Your task to perform on an android device: Search for Mexican restaurants on Maps Image 0: 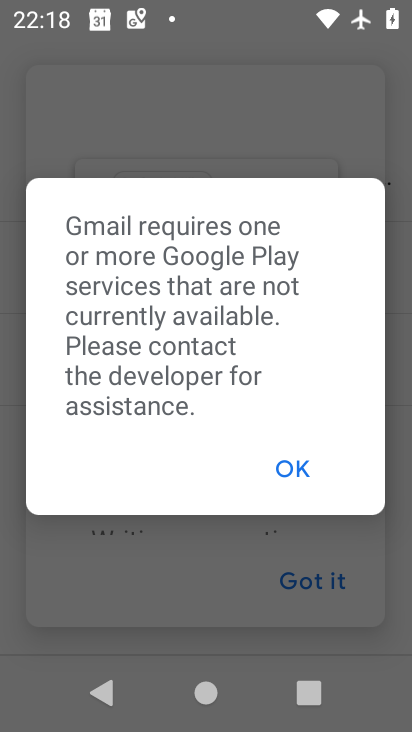
Step 0: press home button
Your task to perform on an android device: Search for Mexican restaurants on Maps Image 1: 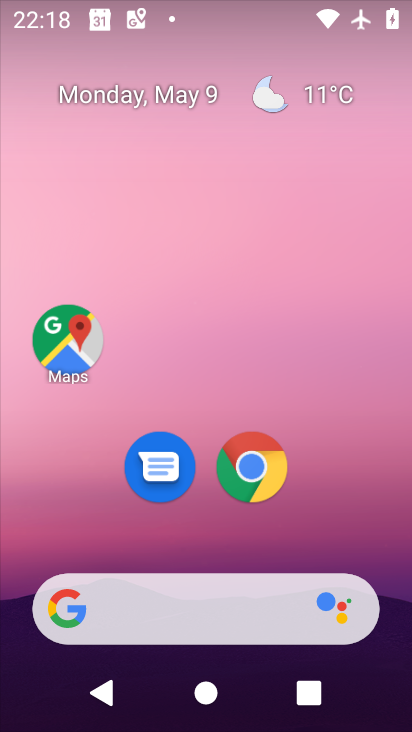
Step 1: drag from (339, 331) to (339, 278)
Your task to perform on an android device: Search for Mexican restaurants on Maps Image 2: 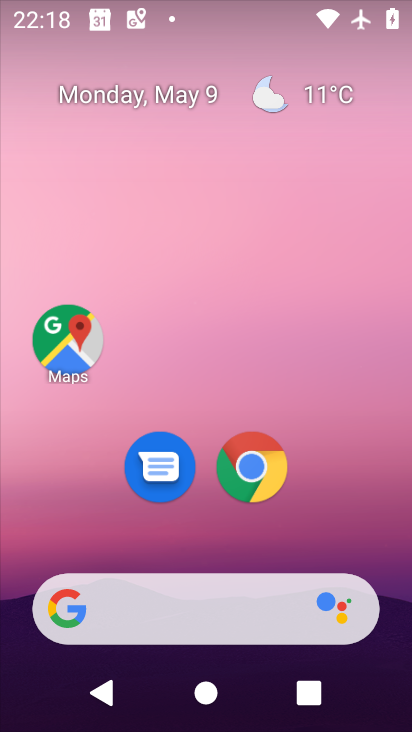
Step 2: drag from (329, 590) to (314, 259)
Your task to perform on an android device: Search for Mexican restaurants on Maps Image 3: 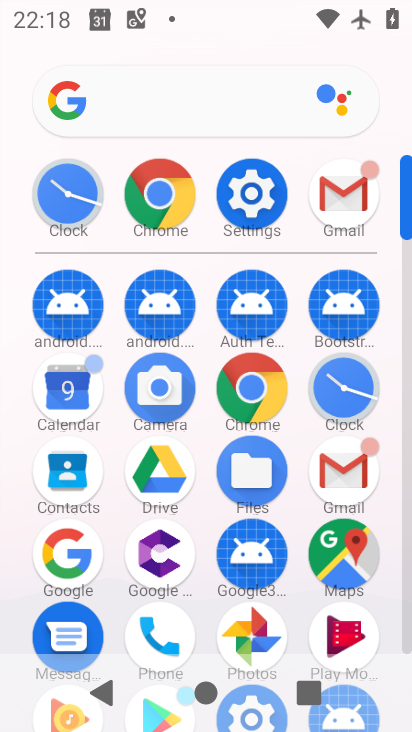
Step 3: click (355, 542)
Your task to perform on an android device: Search for Mexican restaurants on Maps Image 4: 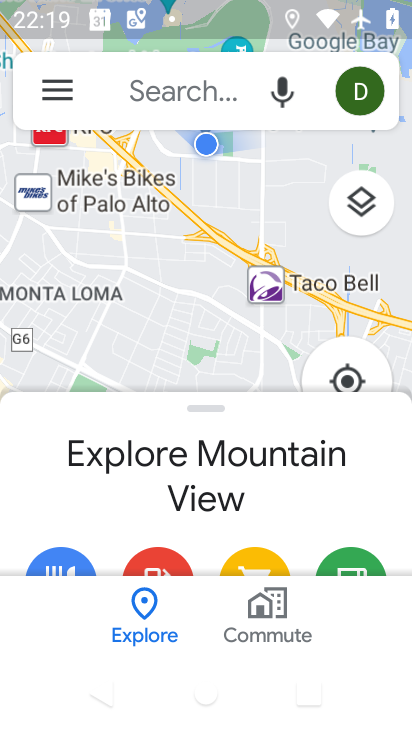
Step 4: click (186, 74)
Your task to perform on an android device: Search for Mexican restaurants on Maps Image 5: 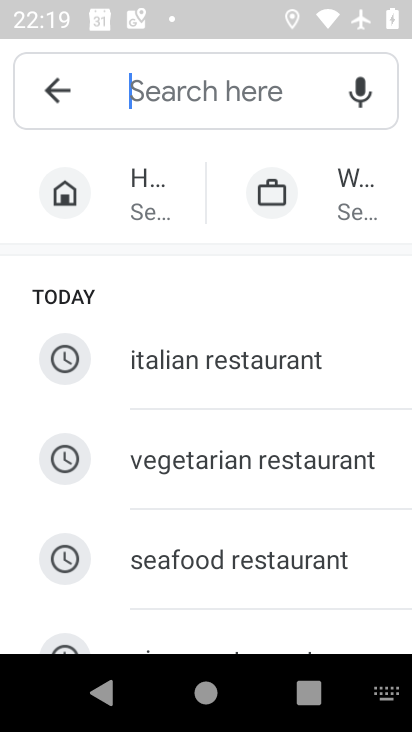
Step 5: click (189, 94)
Your task to perform on an android device: Search for Mexican restaurants on Maps Image 6: 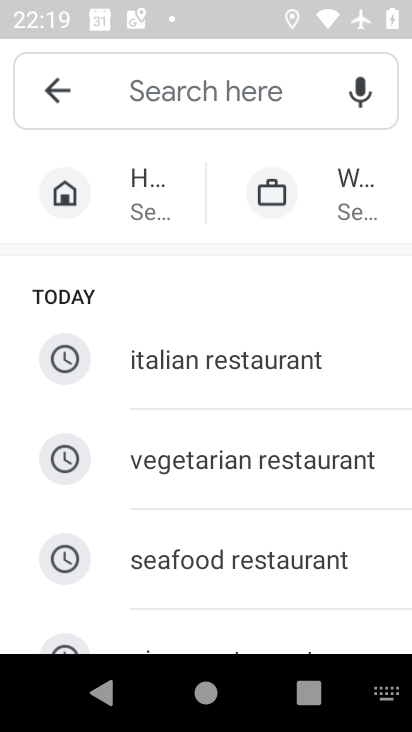
Step 6: type "Mexican restaurants "
Your task to perform on an android device: Search for Mexican restaurants on Maps Image 7: 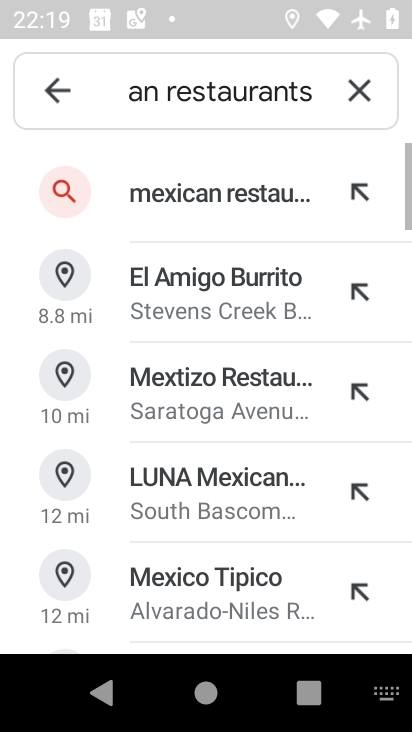
Step 7: click (189, 195)
Your task to perform on an android device: Search for Mexican restaurants on Maps Image 8: 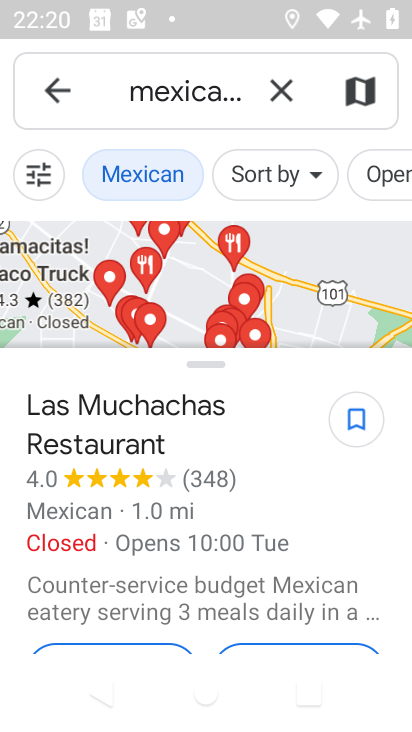
Step 8: task complete